Your task to perform on an android device: Open Yahoo.com Image 0: 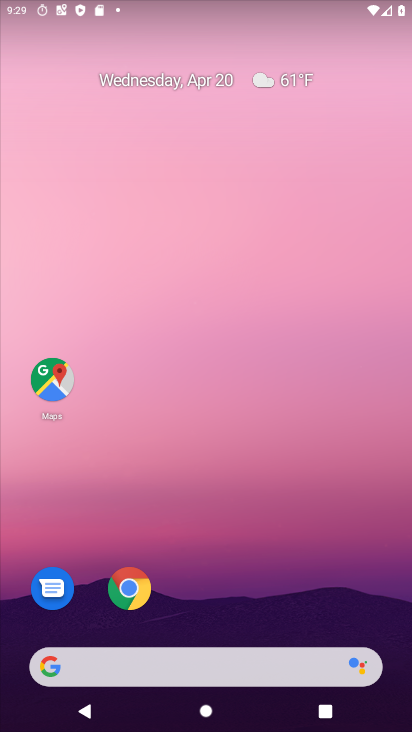
Step 0: drag from (272, 512) to (134, 17)
Your task to perform on an android device: Open Yahoo.com Image 1: 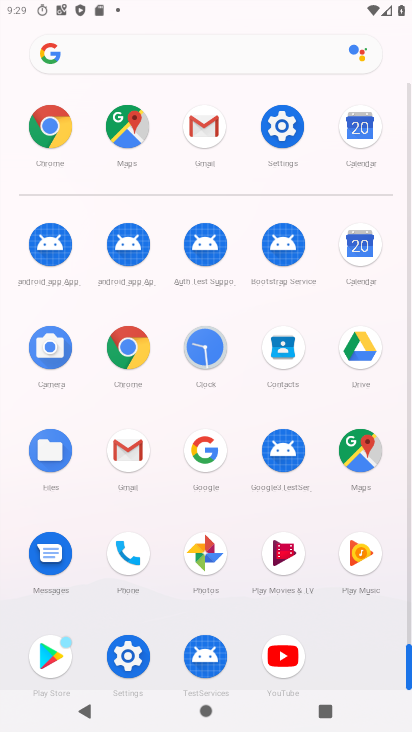
Step 1: click (129, 344)
Your task to perform on an android device: Open Yahoo.com Image 2: 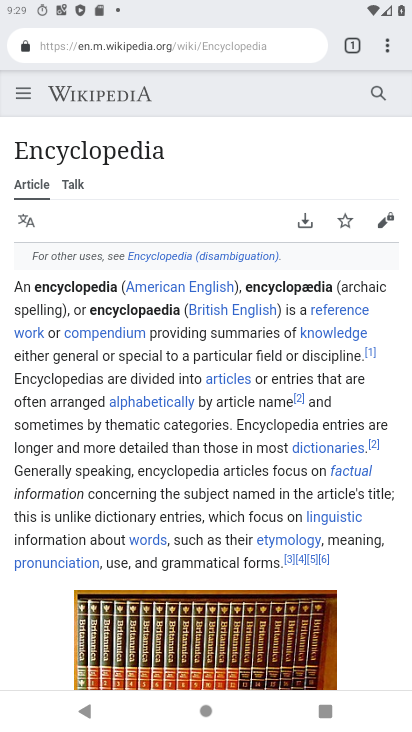
Step 2: click (227, 45)
Your task to perform on an android device: Open Yahoo.com Image 3: 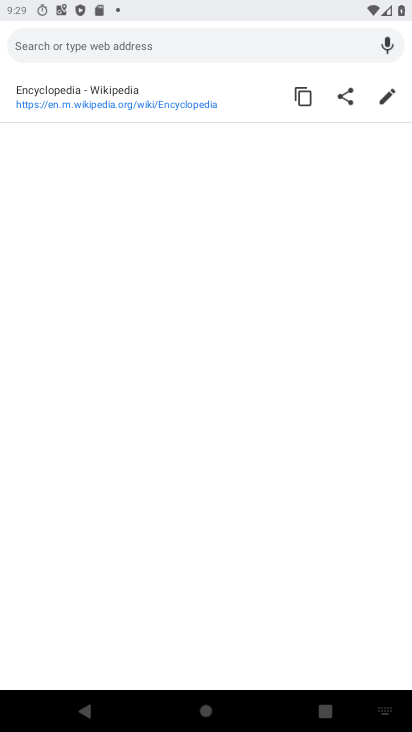
Step 3: click (227, 45)
Your task to perform on an android device: Open Yahoo.com Image 4: 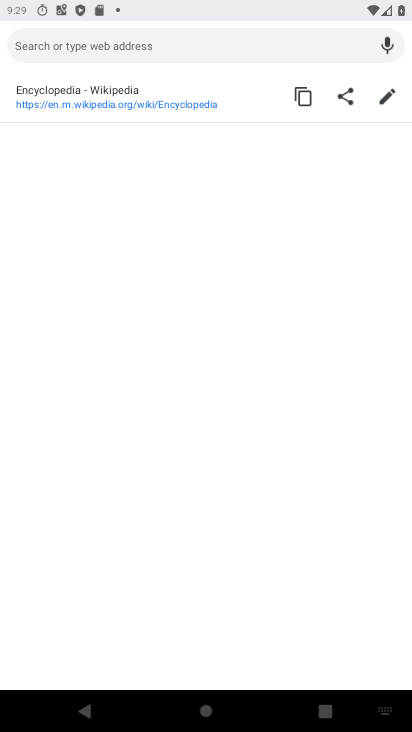
Step 4: type "Yahoo.com"
Your task to perform on an android device: Open Yahoo.com Image 5: 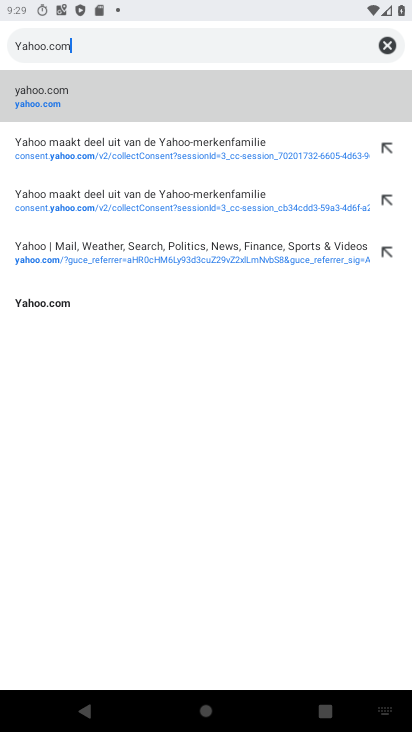
Step 5: type ""
Your task to perform on an android device: Open Yahoo.com Image 6: 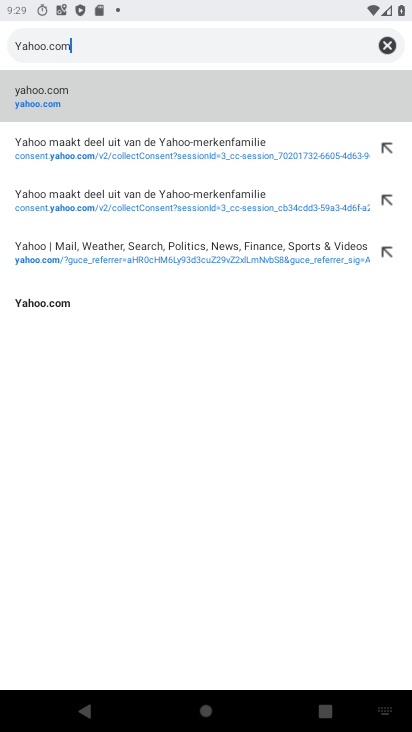
Step 6: click (84, 95)
Your task to perform on an android device: Open Yahoo.com Image 7: 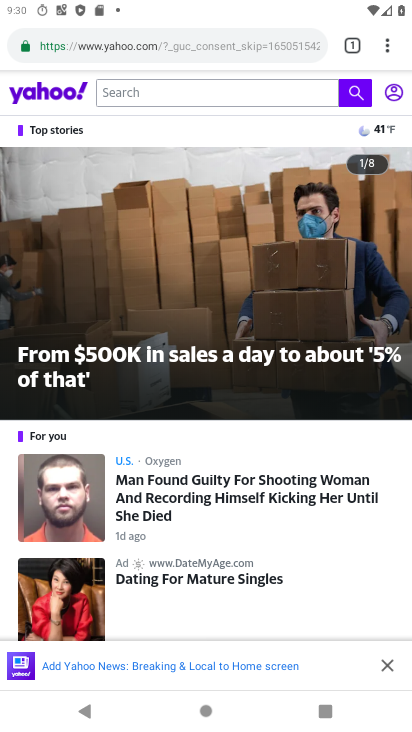
Step 7: task complete